Your task to perform on an android device: turn smart compose on in the gmail app Image 0: 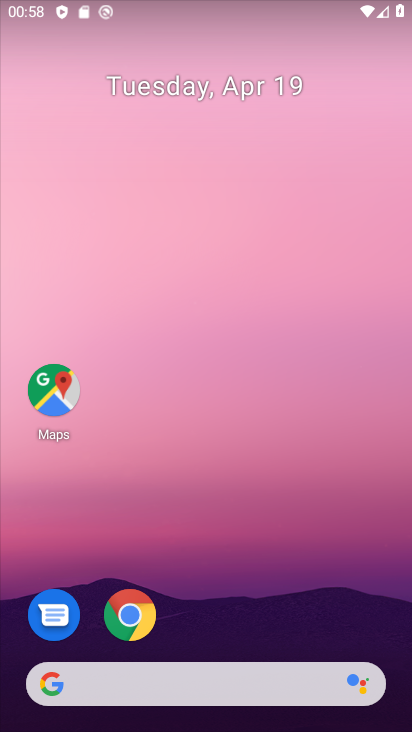
Step 0: drag from (243, 556) to (243, 191)
Your task to perform on an android device: turn smart compose on in the gmail app Image 1: 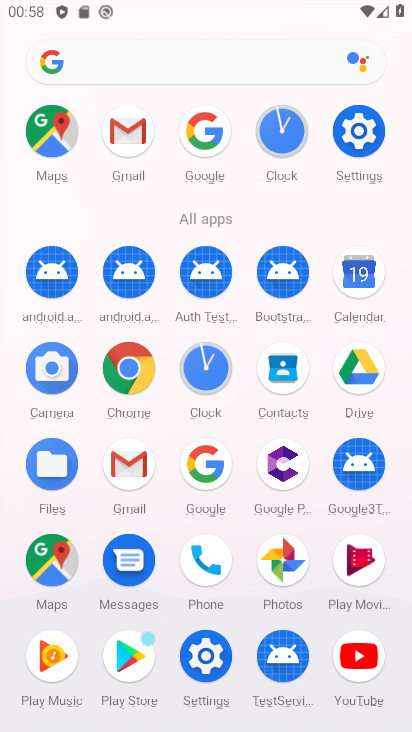
Step 1: click (125, 137)
Your task to perform on an android device: turn smart compose on in the gmail app Image 2: 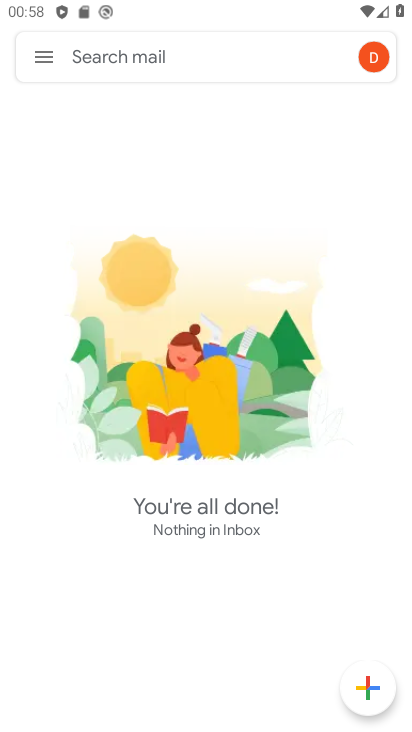
Step 2: click (35, 49)
Your task to perform on an android device: turn smart compose on in the gmail app Image 3: 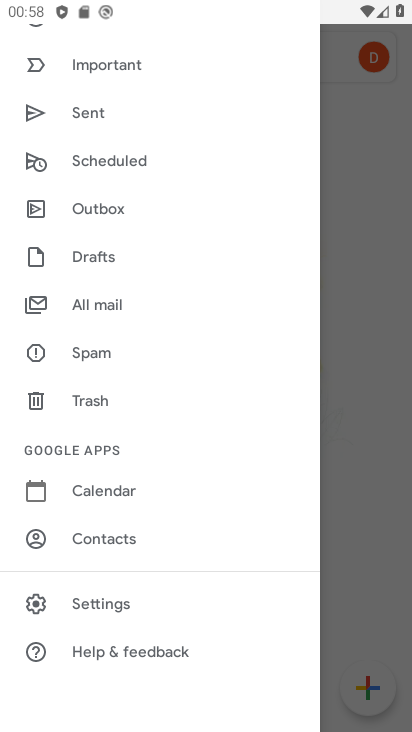
Step 3: click (121, 598)
Your task to perform on an android device: turn smart compose on in the gmail app Image 4: 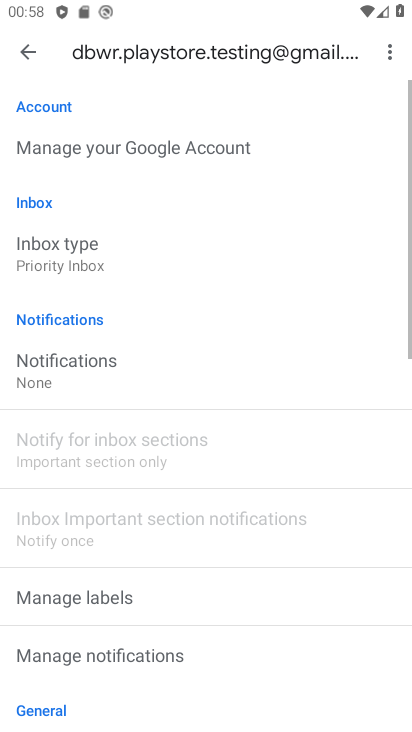
Step 4: task complete